Your task to perform on an android device: Open eBay Image 0: 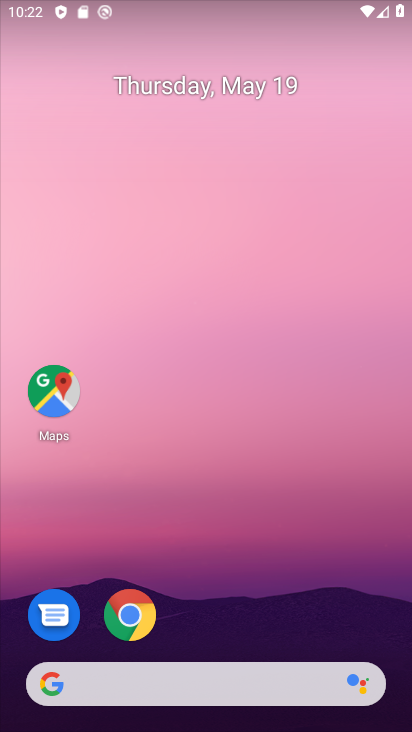
Step 0: click (137, 618)
Your task to perform on an android device: Open eBay Image 1: 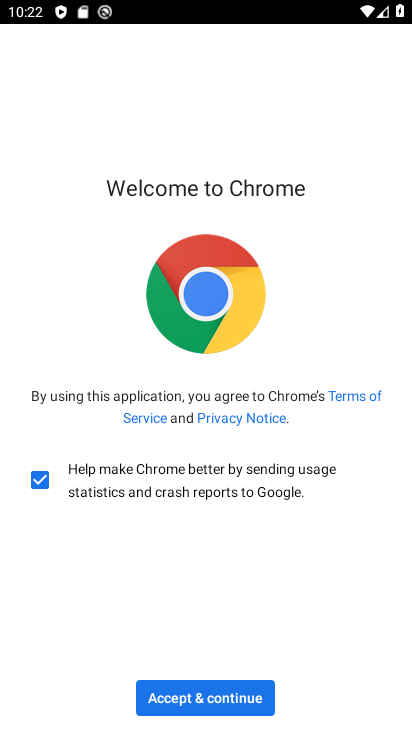
Step 1: click (174, 683)
Your task to perform on an android device: Open eBay Image 2: 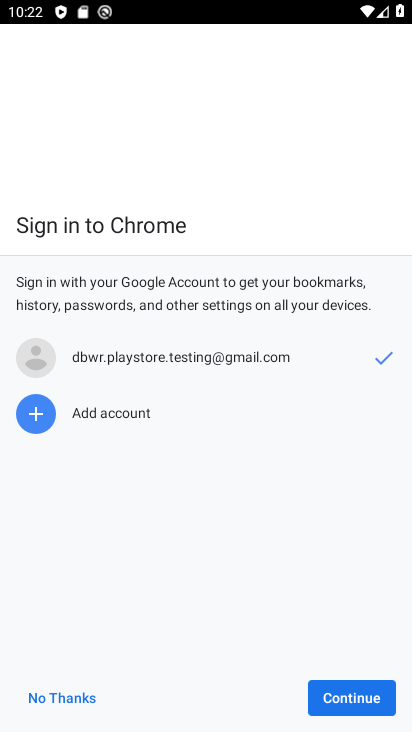
Step 2: click (83, 699)
Your task to perform on an android device: Open eBay Image 3: 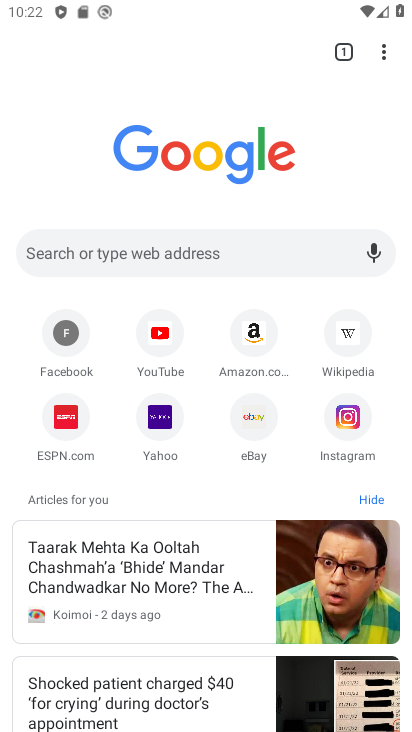
Step 3: click (256, 417)
Your task to perform on an android device: Open eBay Image 4: 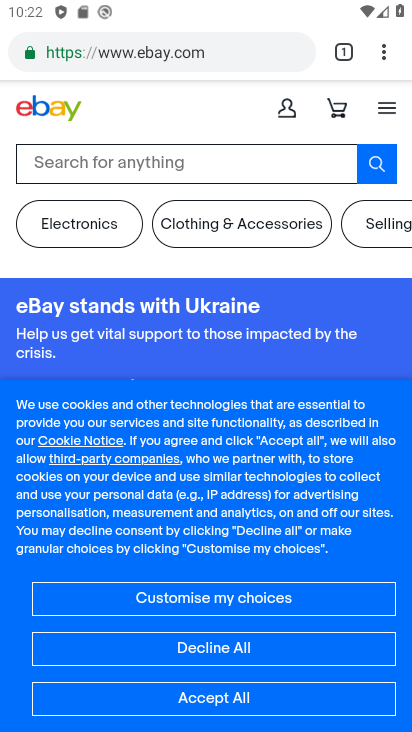
Step 4: task complete